Your task to perform on an android device: toggle location history Image 0: 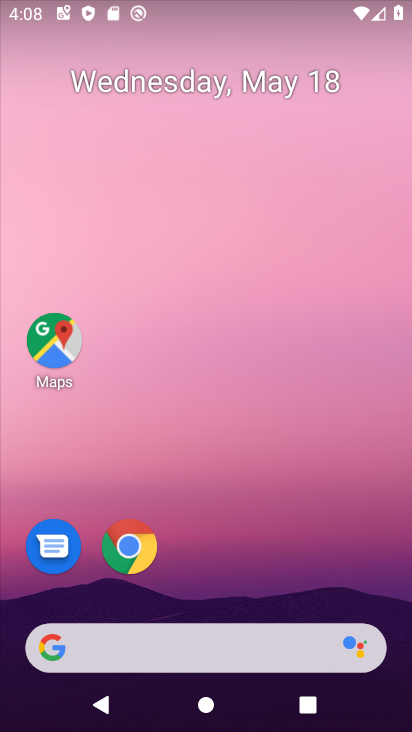
Step 0: drag from (233, 570) to (316, 3)
Your task to perform on an android device: toggle location history Image 1: 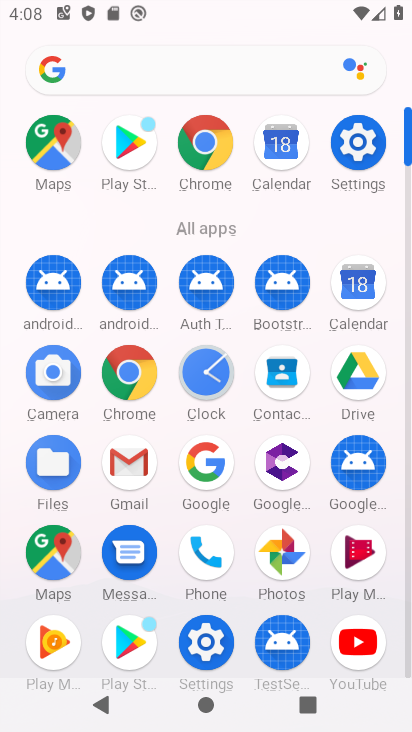
Step 1: click (200, 642)
Your task to perform on an android device: toggle location history Image 2: 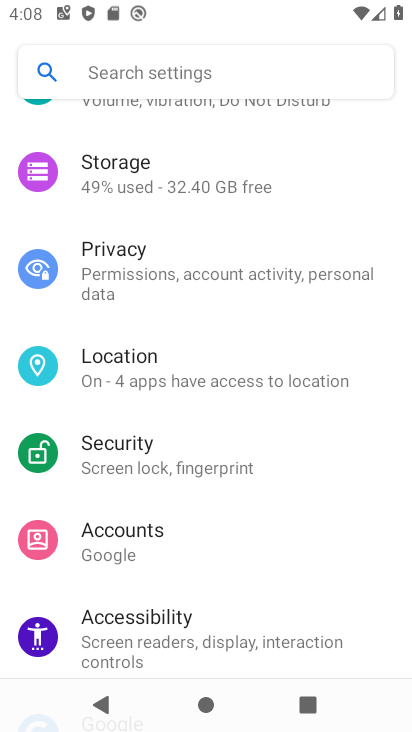
Step 2: click (183, 377)
Your task to perform on an android device: toggle location history Image 3: 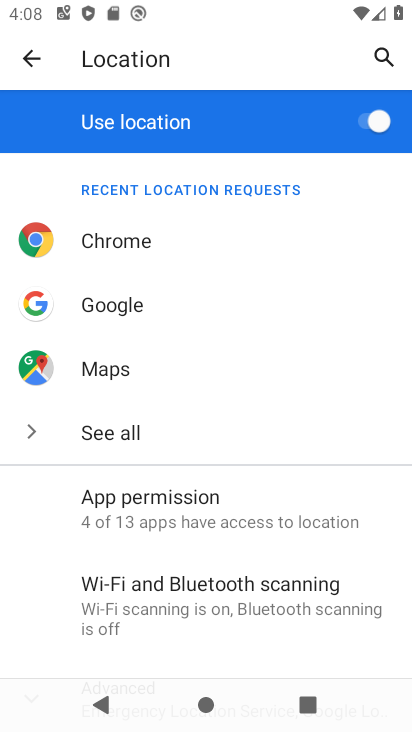
Step 3: drag from (188, 488) to (233, 281)
Your task to perform on an android device: toggle location history Image 4: 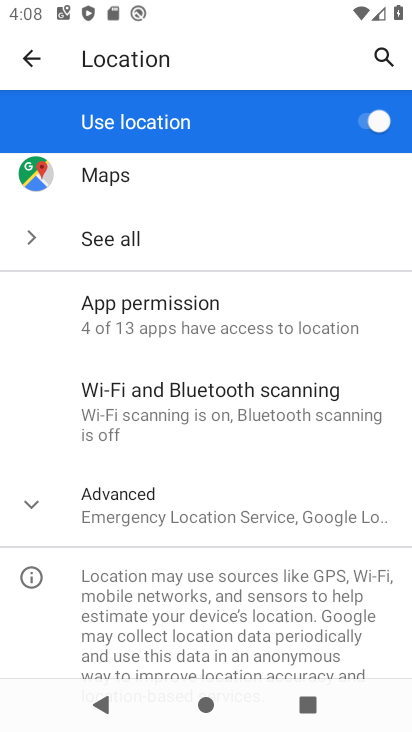
Step 4: click (162, 511)
Your task to perform on an android device: toggle location history Image 5: 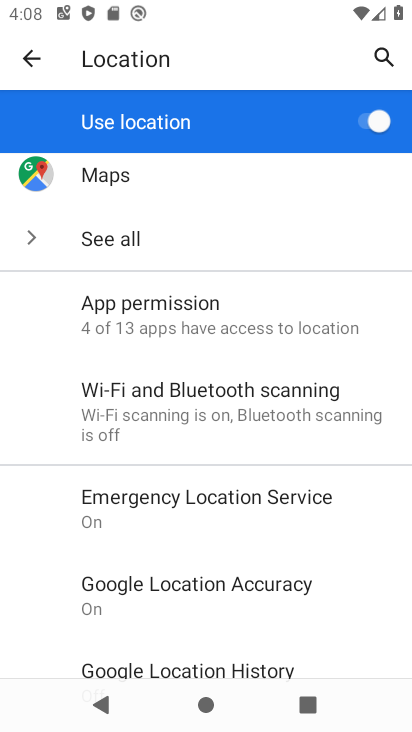
Step 5: drag from (225, 604) to (256, 442)
Your task to perform on an android device: toggle location history Image 6: 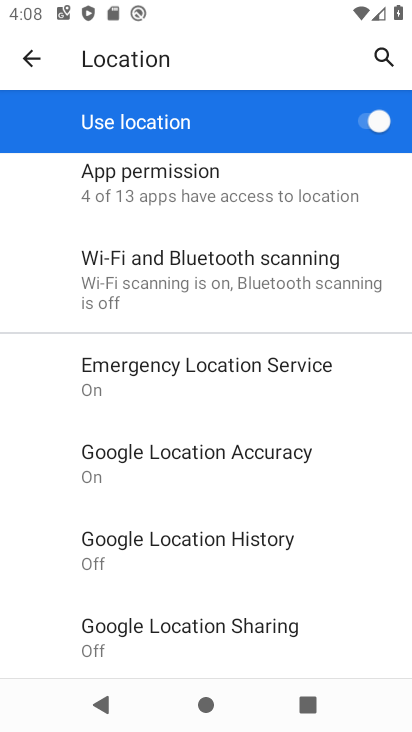
Step 6: click (241, 557)
Your task to perform on an android device: toggle location history Image 7: 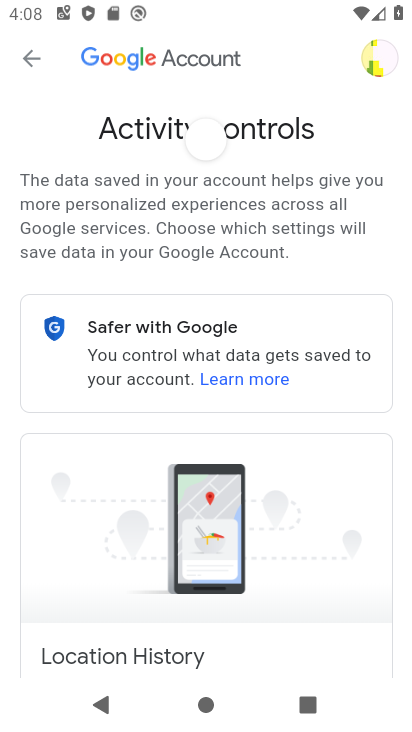
Step 7: drag from (267, 496) to (304, 183)
Your task to perform on an android device: toggle location history Image 8: 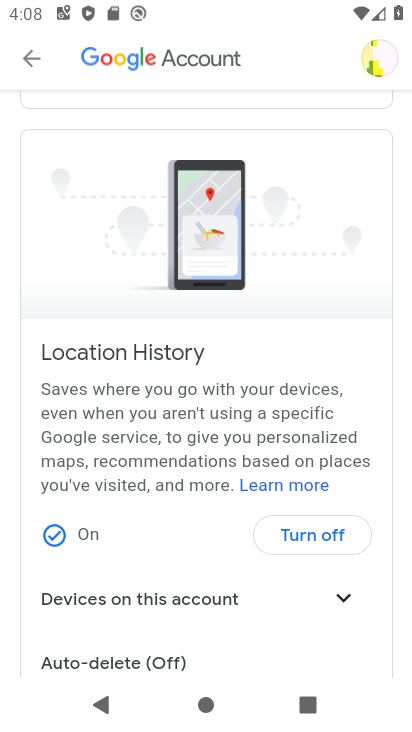
Step 8: click (310, 533)
Your task to perform on an android device: toggle location history Image 9: 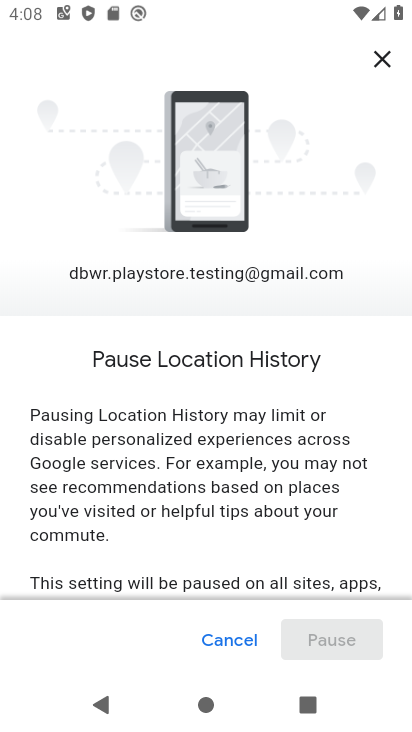
Step 9: drag from (242, 565) to (319, 142)
Your task to perform on an android device: toggle location history Image 10: 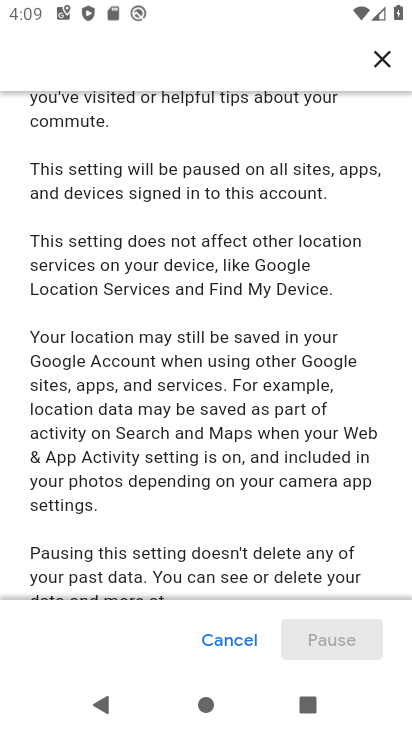
Step 10: drag from (318, 592) to (344, 256)
Your task to perform on an android device: toggle location history Image 11: 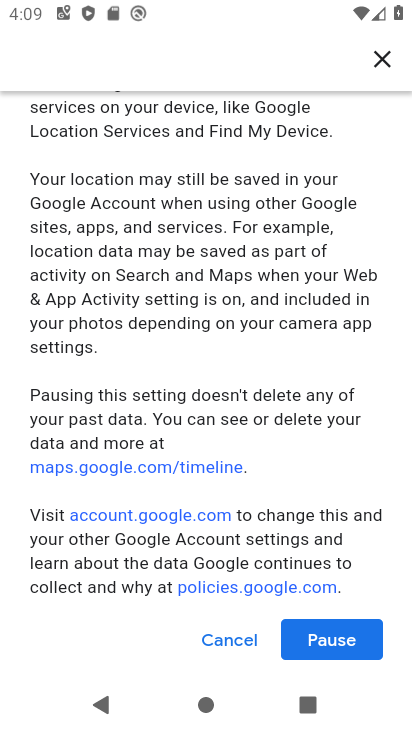
Step 11: click (339, 642)
Your task to perform on an android device: toggle location history Image 12: 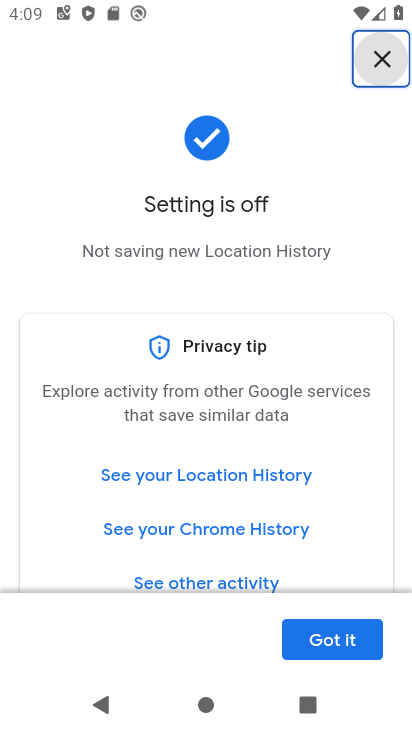
Step 12: click (331, 650)
Your task to perform on an android device: toggle location history Image 13: 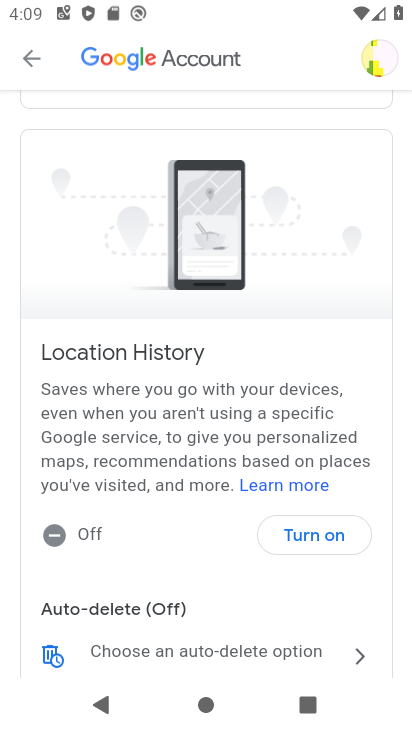
Step 13: task complete